Your task to perform on an android device: Do I have any events this weekend? Image 0: 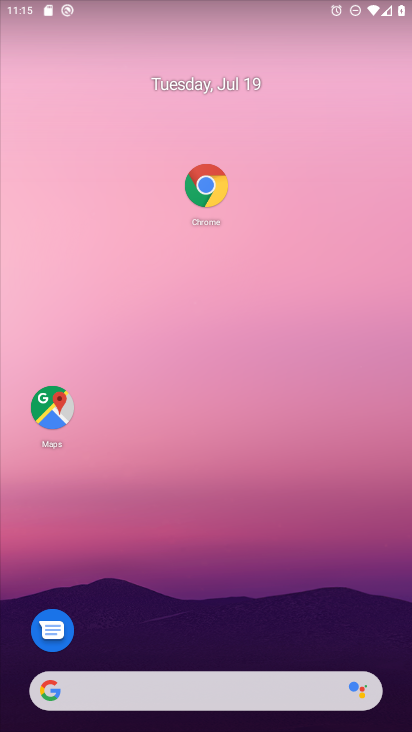
Step 0: drag from (274, 692) to (348, 90)
Your task to perform on an android device: Do I have any events this weekend? Image 1: 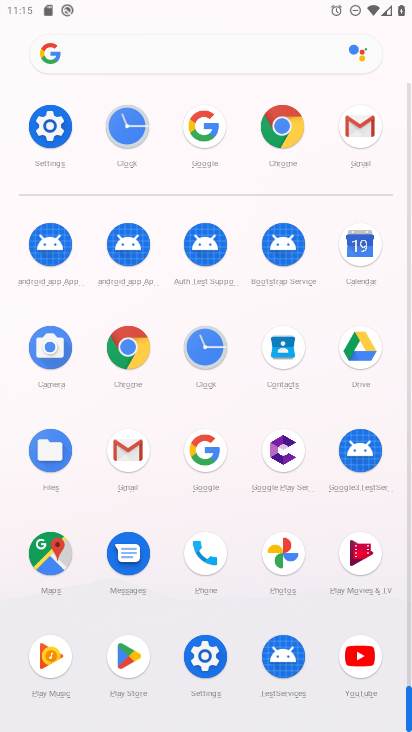
Step 1: click (361, 259)
Your task to perform on an android device: Do I have any events this weekend? Image 2: 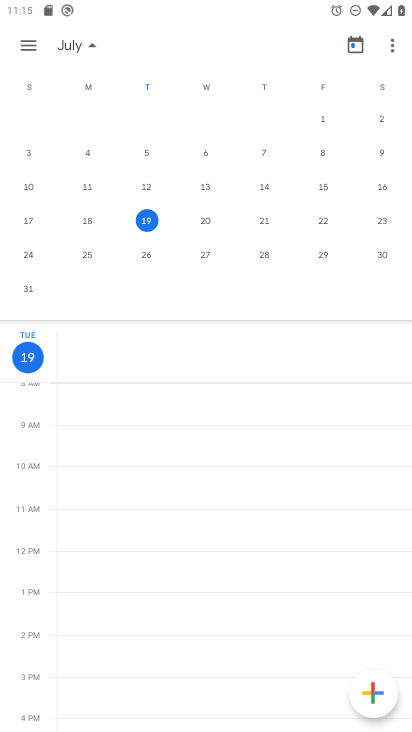
Step 2: click (37, 34)
Your task to perform on an android device: Do I have any events this weekend? Image 3: 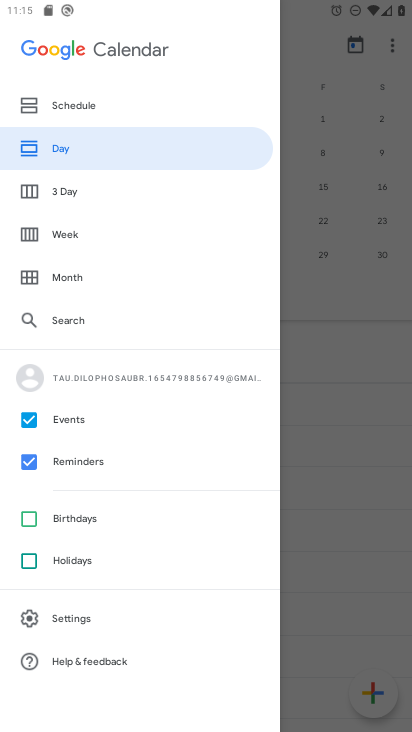
Step 3: click (82, 109)
Your task to perform on an android device: Do I have any events this weekend? Image 4: 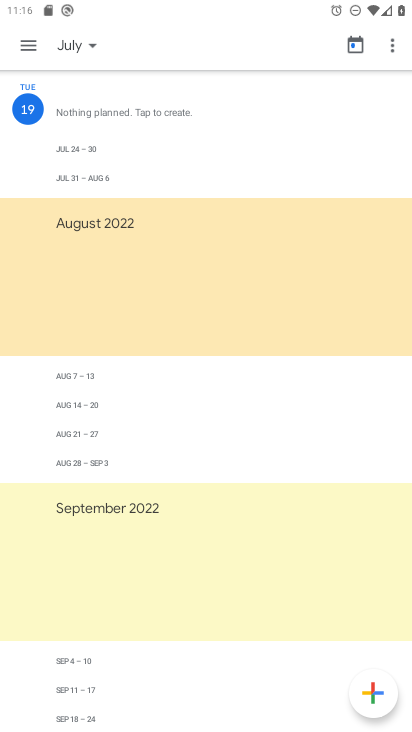
Step 4: click (90, 50)
Your task to perform on an android device: Do I have any events this weekend? Image 5: 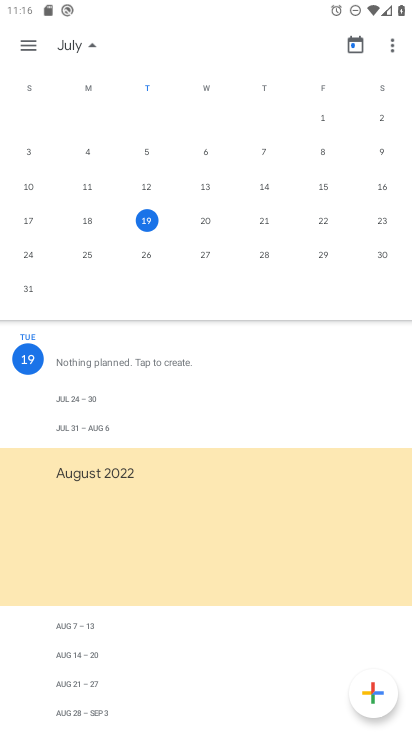
Step 5: click (383, 217)
Your task to perform on an android device: Do I have any events this weekend? Image 6: 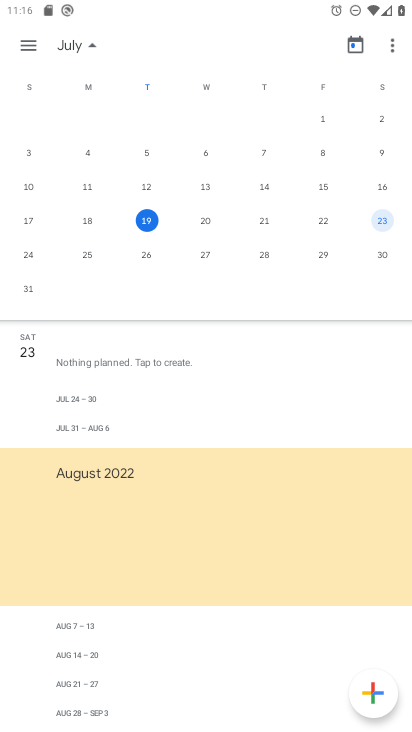
Step 6: task complete